Your task to perform on an android device: snooze an email in the gmail app Image 0: 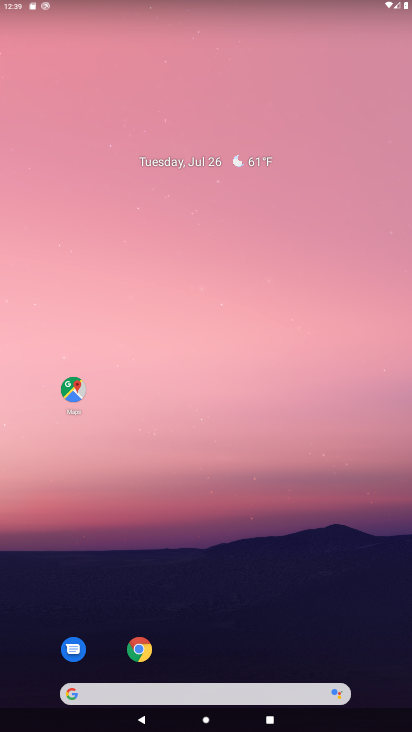
Step 0: drag from (202, 603) to (277, 19)
Your task to perform on an android device: snooze an email in the gmail app Image 1: 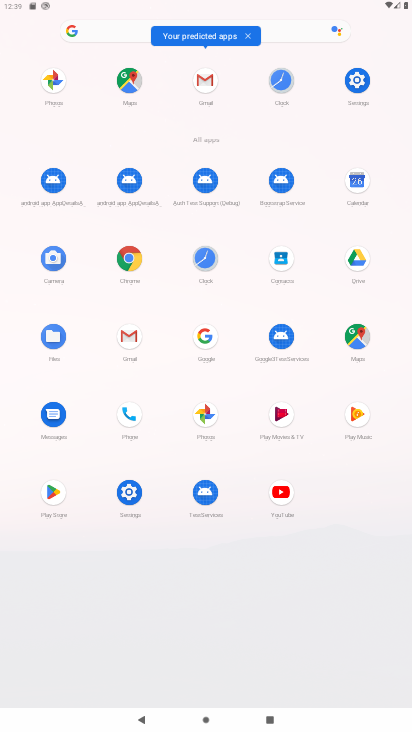
Step 1: click (361, 86)
Your task to perform on an android device: snooze an email in the gmail app Image 2: 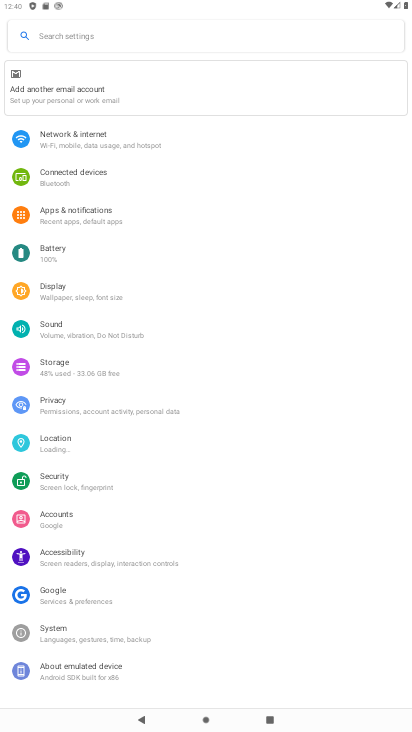
Step 2: click (66, 289)
Your task to perform on an android device: snooze an email in the gmail app Image 3: 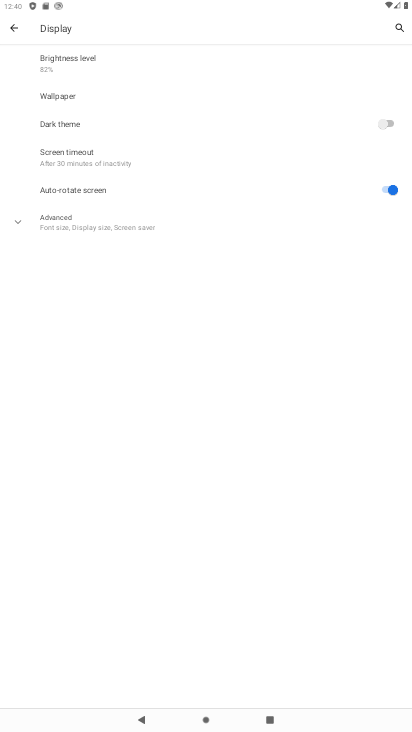
Step 3: click (88, 228)
Your task to perform on an android device: snooze an email in the gmail app Image 4: 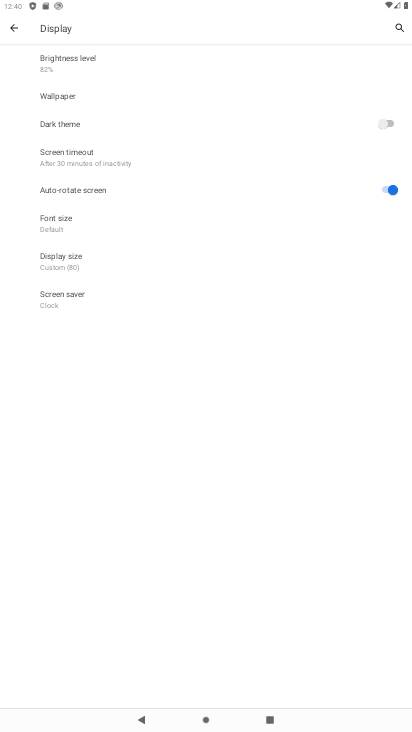
Step 4: click (81, 259)
Your task to perform on an android device: snooze an email in the gmail app Image 5: 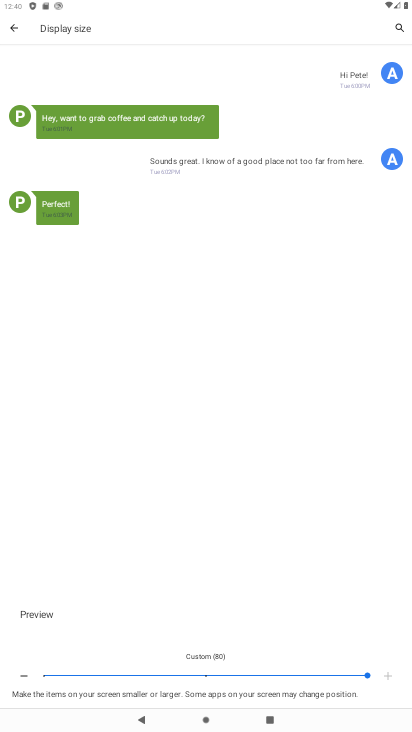
Step 5: click (206, 674)
Your task to perform on an android device: snooze an email in the gmail app Image 6: 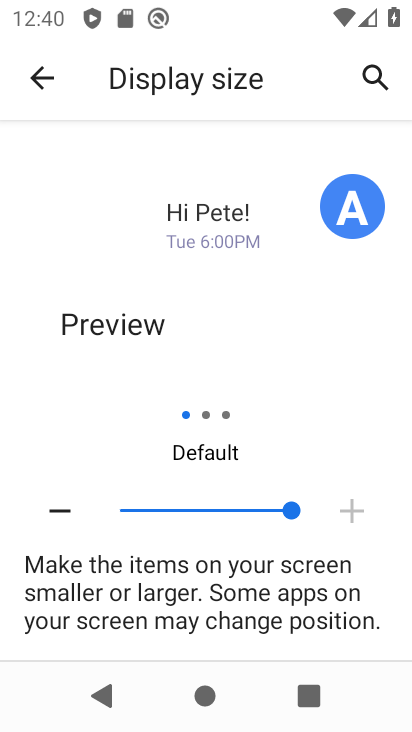
Step 6: click (32, 81)
Your task to perform on an android device: snooze an email in the gmail app Image 7: 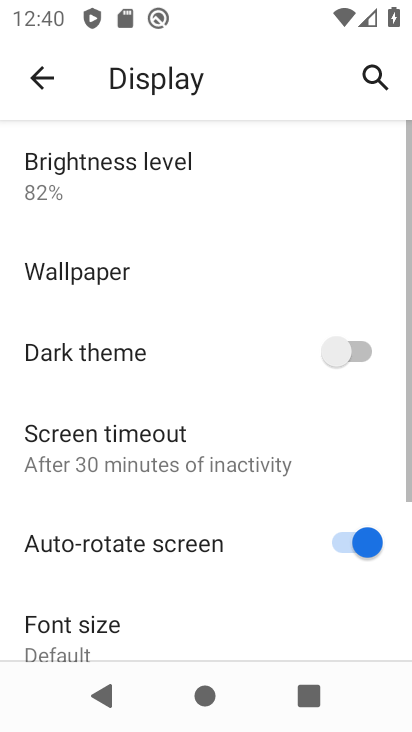
Step 7: click (41, 85)
Your task to perform on an android device: snooze an email in the gmail app Image 8: 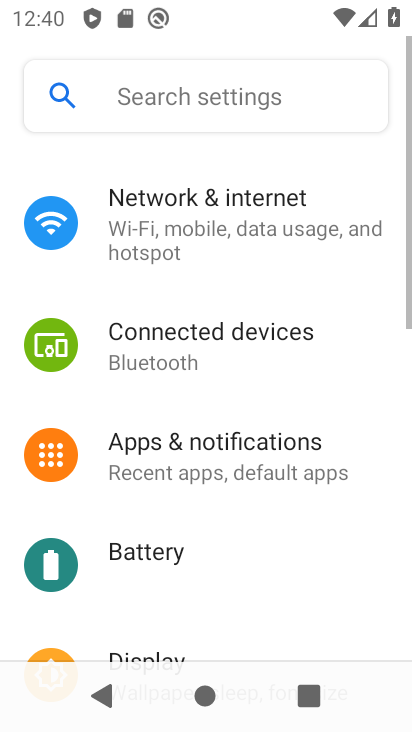
Step 8: press back button
Your task to perform on an android device: snooze an email in the gmail app Image 9: 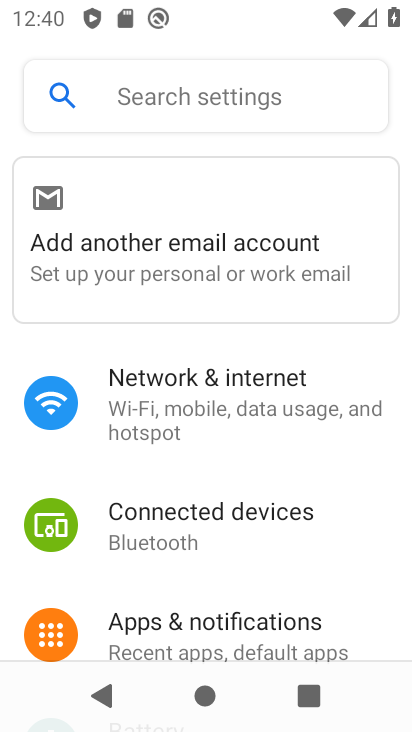
Step 9: press back button
Your task to perform on an android device: snooze an email in the gmail app Image 10: 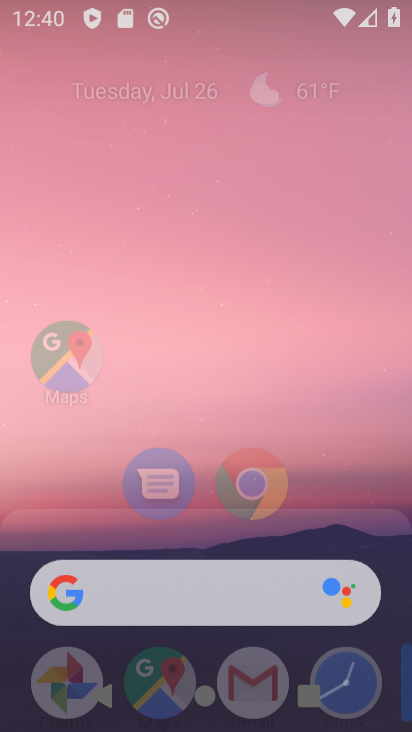
Step 10: press back button
Your task to perform on an android device: snooze an email in the gmail app Image 11: 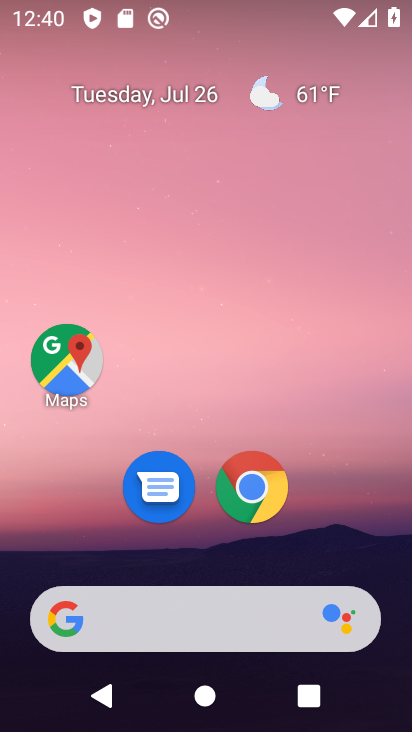
Step 11: drag from (162, 525) to (277, 3)
Your task to perform on an android device: snooze an email in the gmail app Image 12: 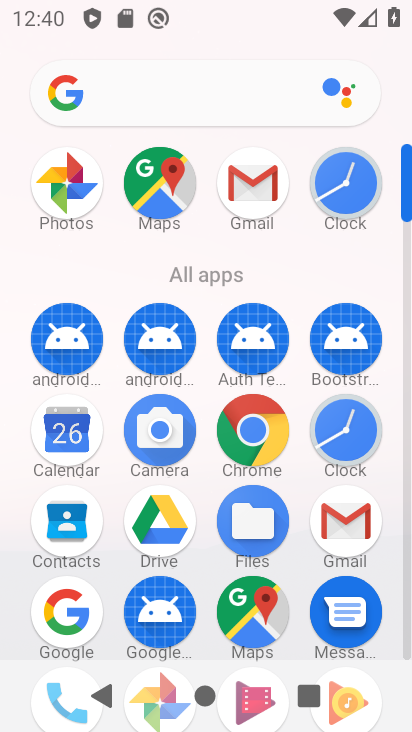
Step 12: click (243, 187)
Your task to perform on an android device: snooze an email in the gmail app Image 13: 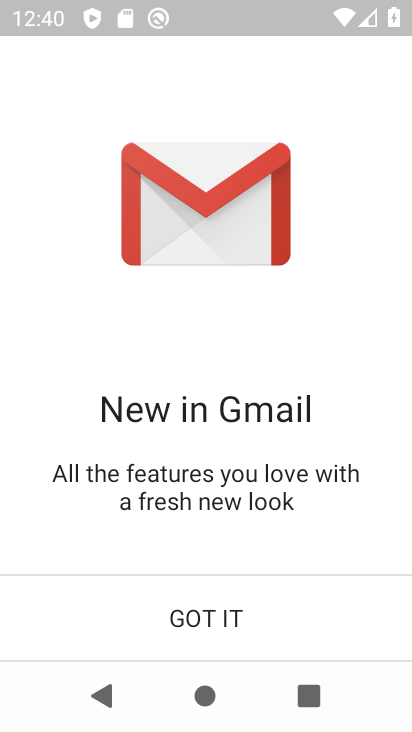
Step 13: click (230, 617)
Your task to perform on an android device: snooze an email in the gmail app Image 14: 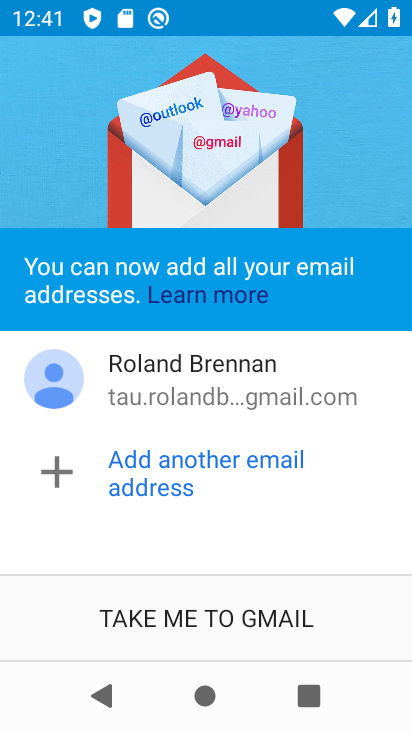
Step 14: click (234, 618)
Your task to perform on an android device: snooze an email in the gmail app Image 15: 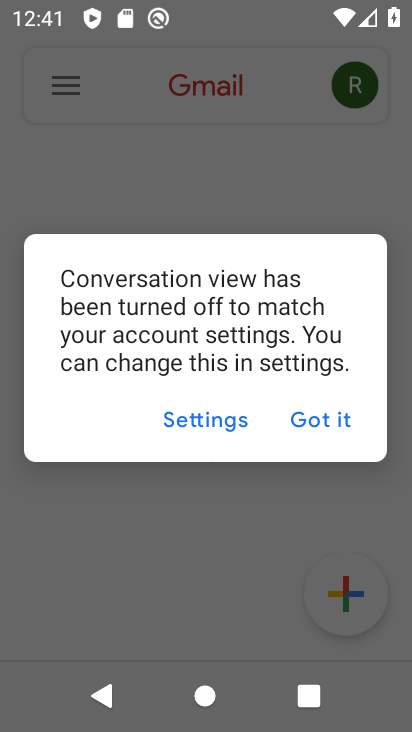
Step 15: click (303, 413)
Your task to perform on an android device: snooze an email in the gmail app Image 16: 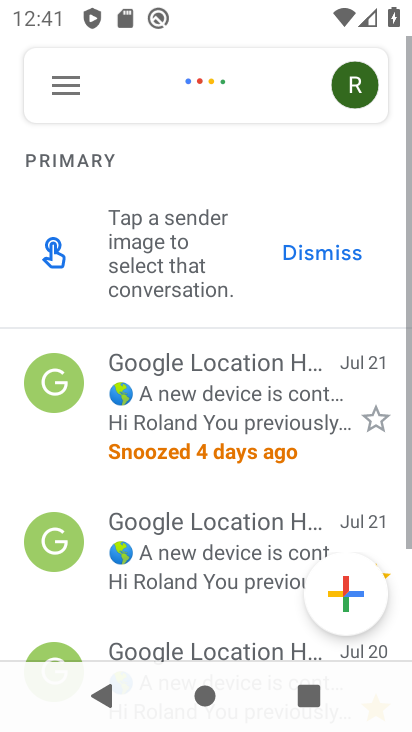
Step 16: click (238, 538)
Your task to perform on an android device: snooze an email in the gmail app Image 17: 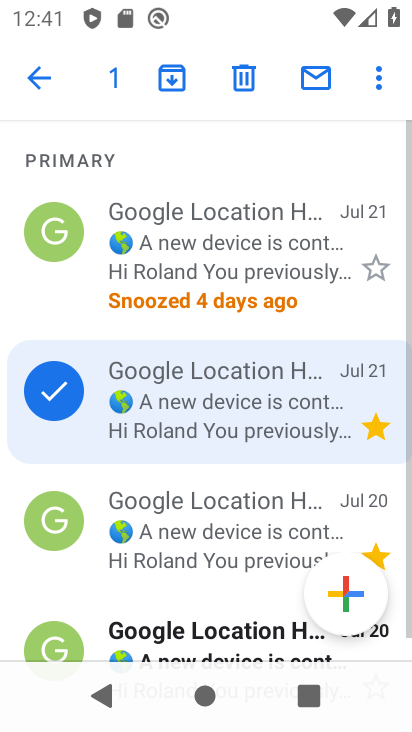
Step 17: click (374, 72)
Your task to perform on an android device: snooze an email in the gmail app Image 18: 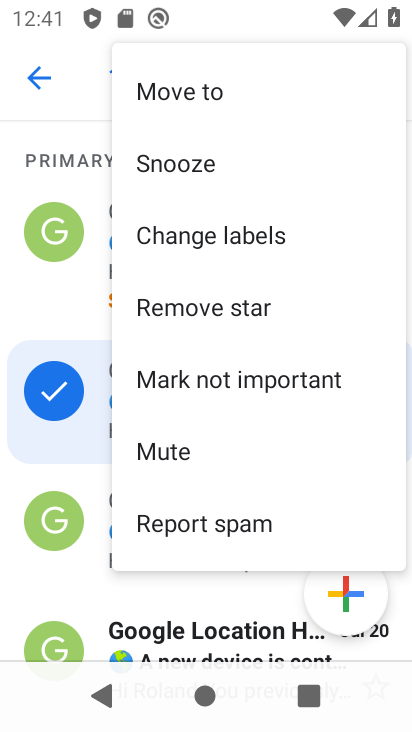
Step 18: click (215, 175)
Your task to perform on an android device: snooze an email in the gmail app Image 19: 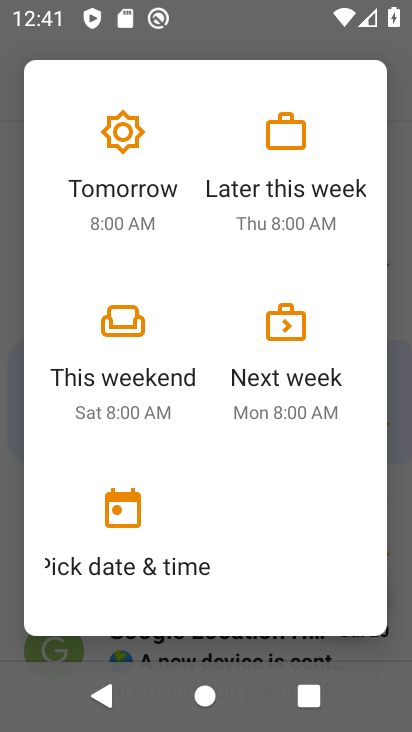
Step 19: click (303, 352)
Your task to perform on an android device: snooze an email in the gmail app Image 20: 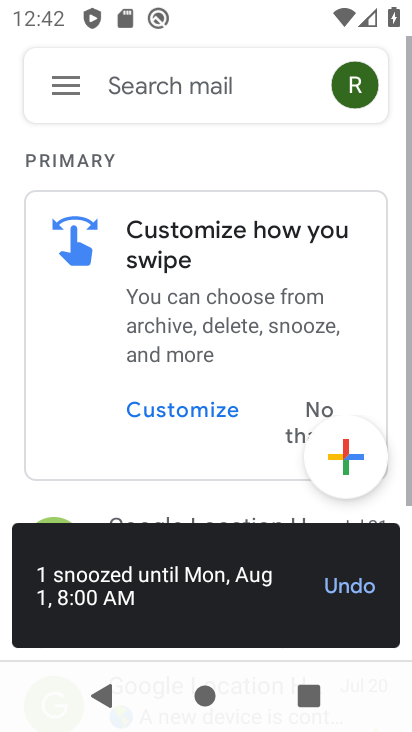
Step 20: task complete